Your task to perform on an android device: Open Google Chrome and click the shortcut for Amazon.com Image 0: 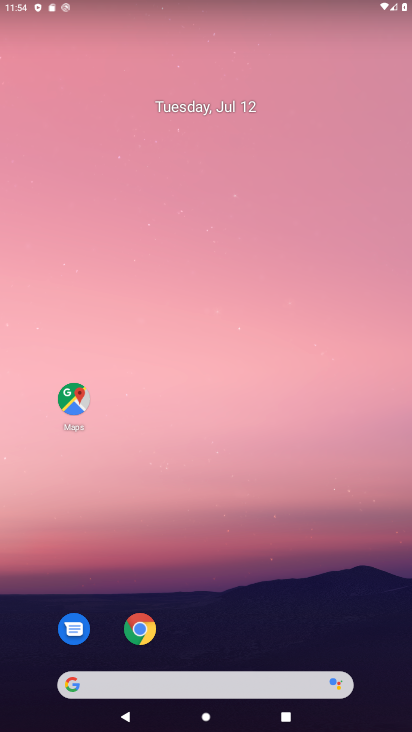
Step 0: click (142, 631)
Your task to perform on an android device: Open Google Chrome and click the shortcut for Amazon.com Image 1: 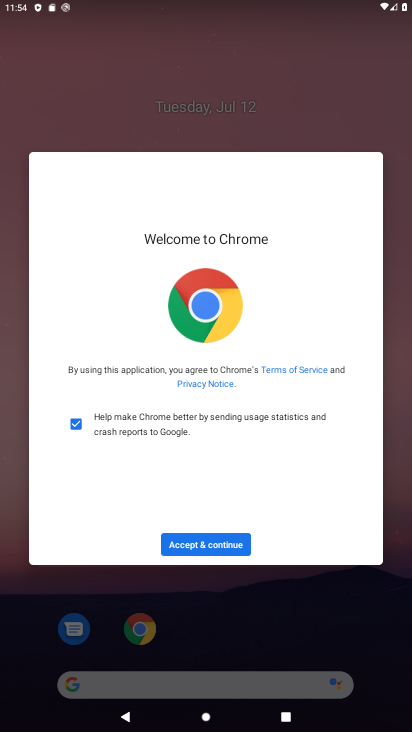
Step 1: click (248, 538)
Your task to perform on an android device: Open Google Chrome and click the shortcut for Amazon.com Image 2: 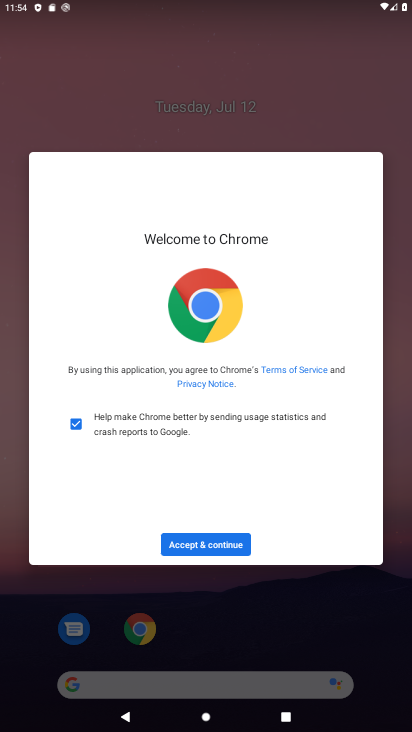
Step 2: click (211, 541)
Your task to perform on an android device: Open Google Chrome and click the shortcut for Amazon.com Image 3: 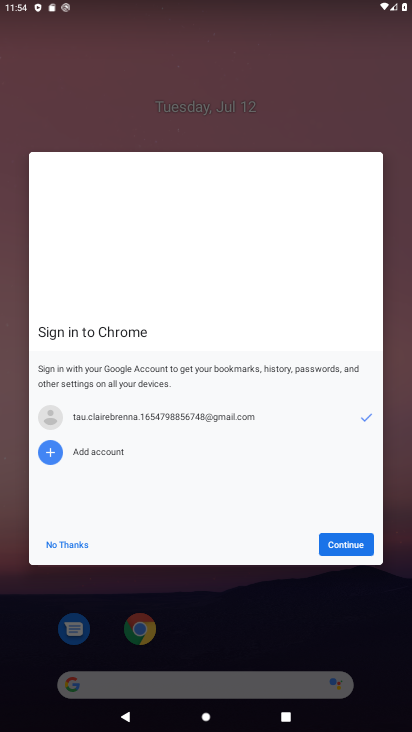
Step 3: click (342, 551)
Your task to perform on an android device: Open Google Chrome and click the shortcut for Amazon.com Image 4: 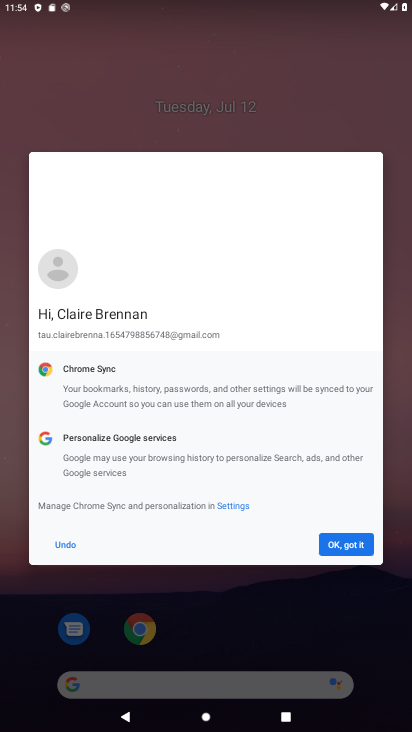
Step 4: click (342, 551)
Your task to perform on an android device: Open Google Chrome and click the shortcut for Amazon.com Image 5: 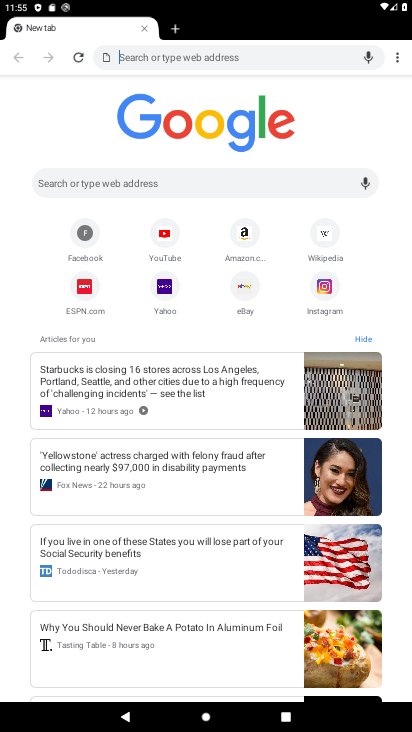
Step 5: click (238, 237)
Your task to perform on an android device: Open Google Chrome and click the shortcut for Amazon.com Image 6: 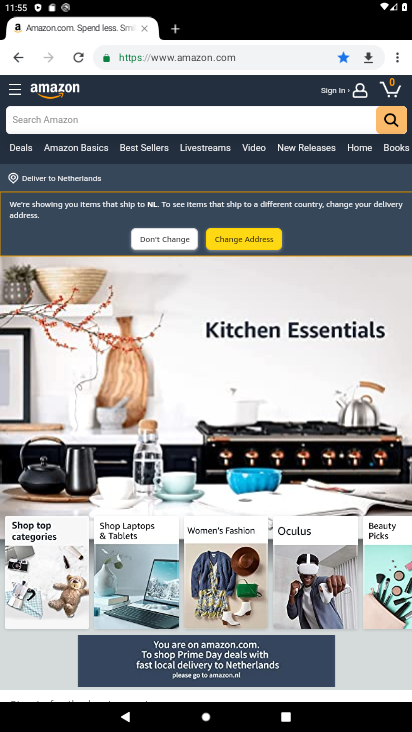
Step 6: task complete